Your task to perform on an android device: Open Google Chrome and click the shortcut for Amazon.com Image 0: 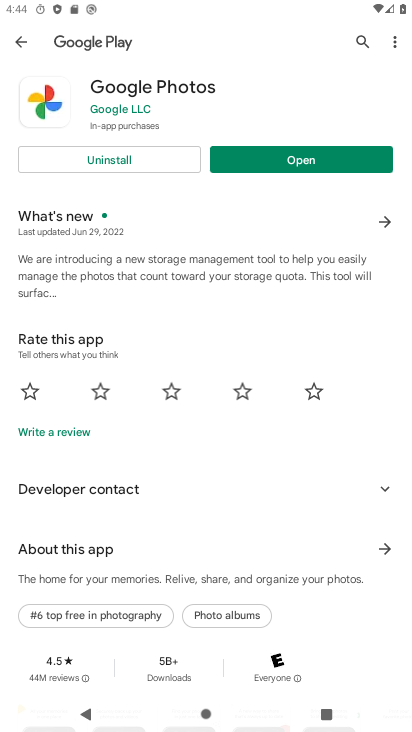
Step 0: press home button
Your task to perform on an android device: Open Google Chrome and click the shortcut for Amazon.com Image 1: 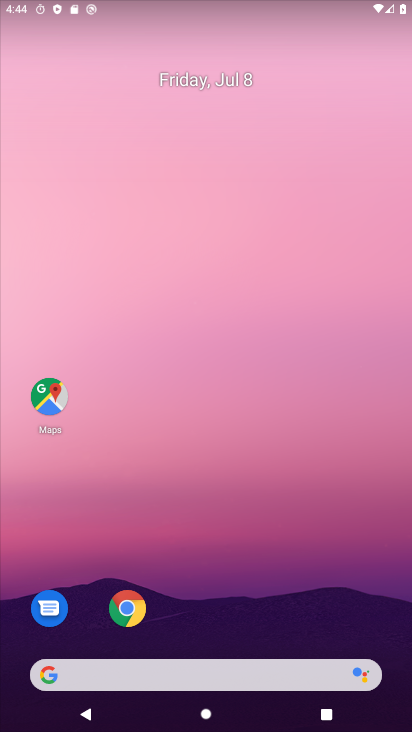
Step 1: click (123, 608)
Your task to perform on an android device: Open Google Chrome and click the shortcut for Amazon.com Image 2: 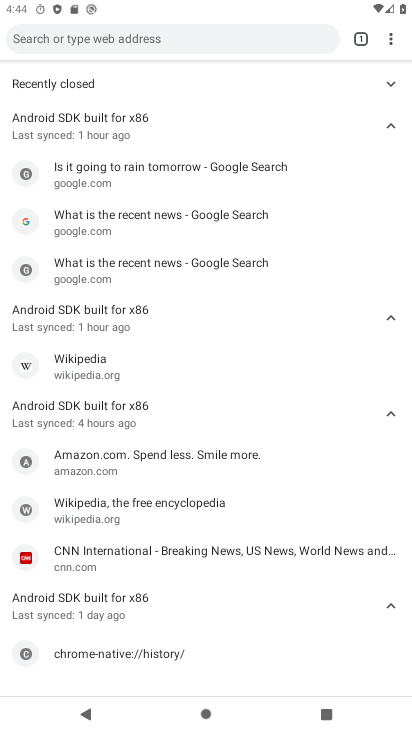
Step 2: press back button
Your task to perform on an android device: Open Google Chrome and click the shortcut for Amazon.com Image 3: 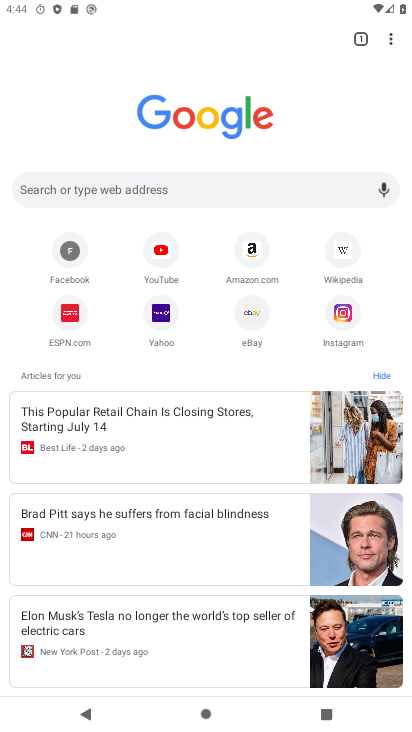
Step 3: click (251, 248)
Your task to perform on an android device: Open Google Chrome and click the shortcut for Amazon.com Image 4: 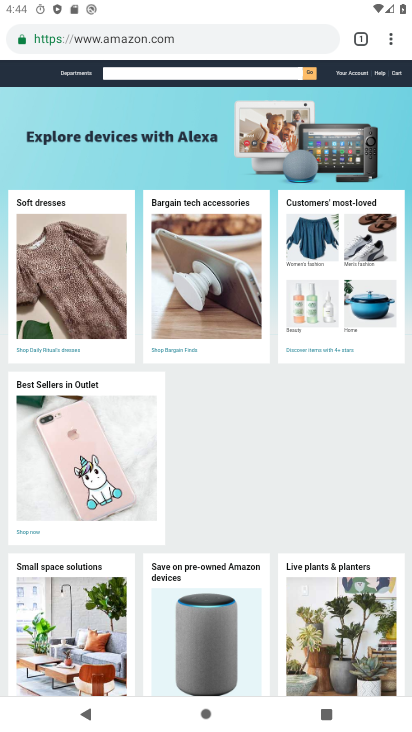
Step 4: task complete